Your task to perform on an android device: open app "WhatsApp Messenger" (install if not already installed) and go to login screen Image 0: 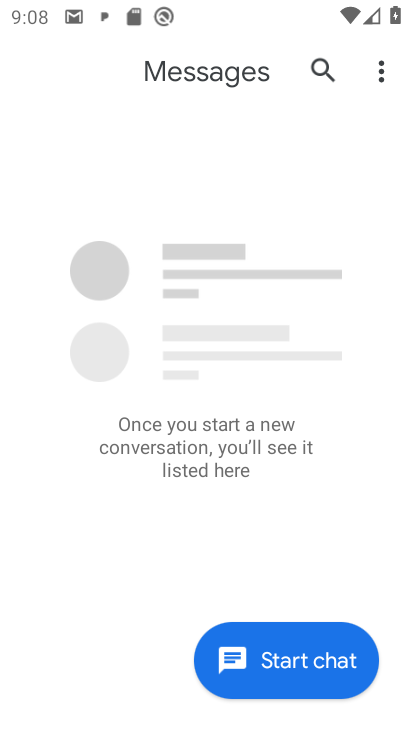
Step 0: press home button
Your task to perform on an android device: open app "WhatsApp Messenger" (install if not already installed) and go to login screen Image 1: 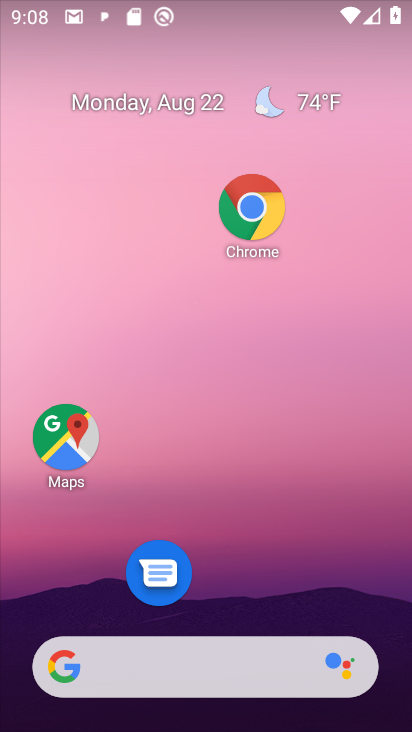
Step 1: drag from (237, 592) to (255, 276)
Your task to perform on an android device: open app "WhatsApp Messenger" (install if not already installed) and go to login screen Image 2: 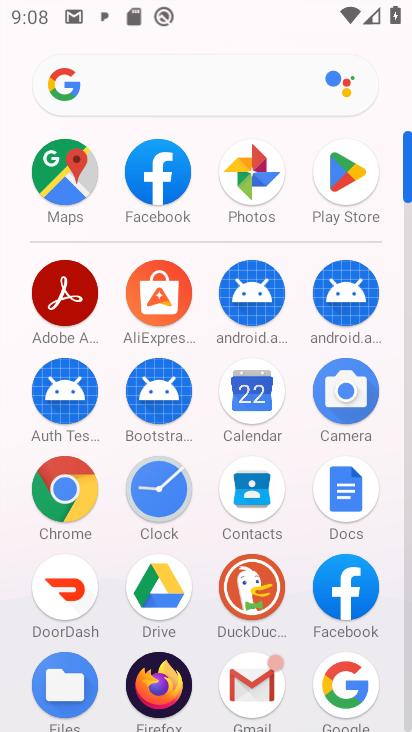
Step 2: click (331, 177)
Your task to perform on an android device: open app "WhatsApp Messenger" (install if not already installed) and go to login screen Image 3: 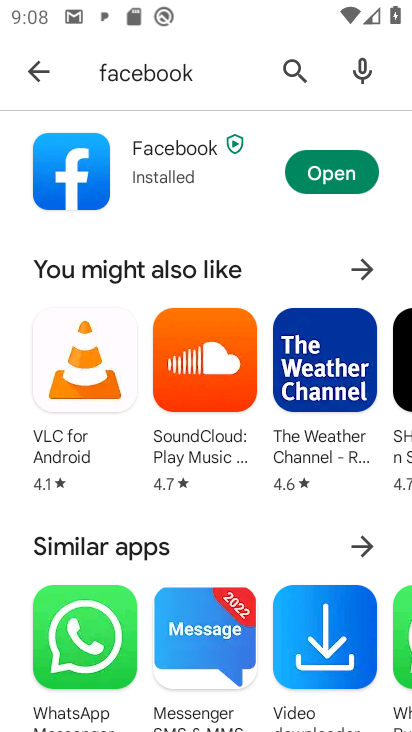
Step 3: click (170, 71)
Your task to perform on an android device: open app "WhatsApp Messenger" (install if not already installed) and go to login screen Image 4: 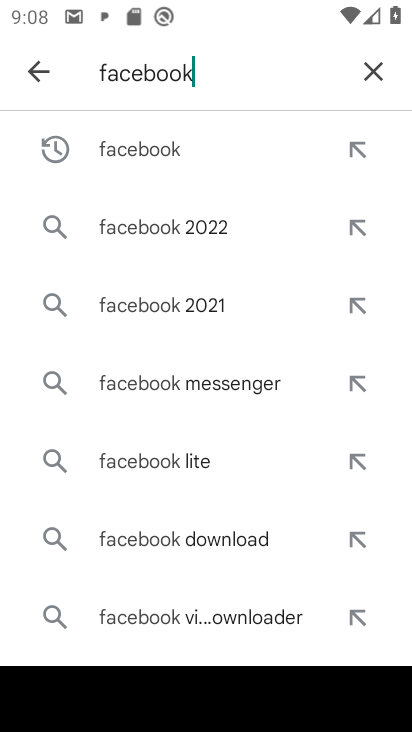
Step 4: click (380, 77)
Your task to perform on an android device: open app "WhatsApp Messenger" (install if not already installed) and go to login screen Image 5: 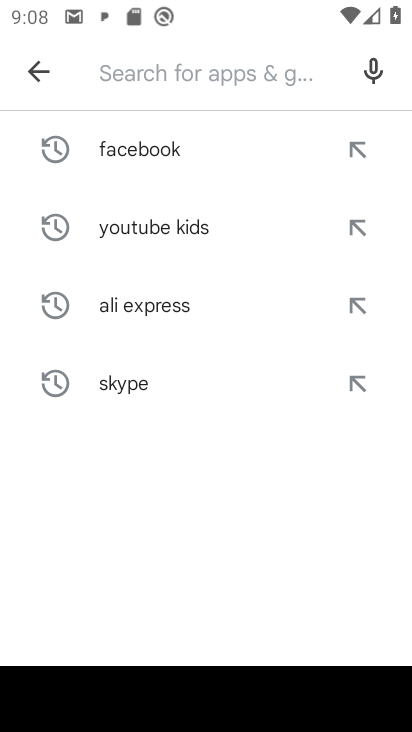
Step 5: type "Whatsapp Messenger"
Your task to perform on an android device: open app "WhatsApp Messenger" (install if not already installed) and go to login screen Image 6: 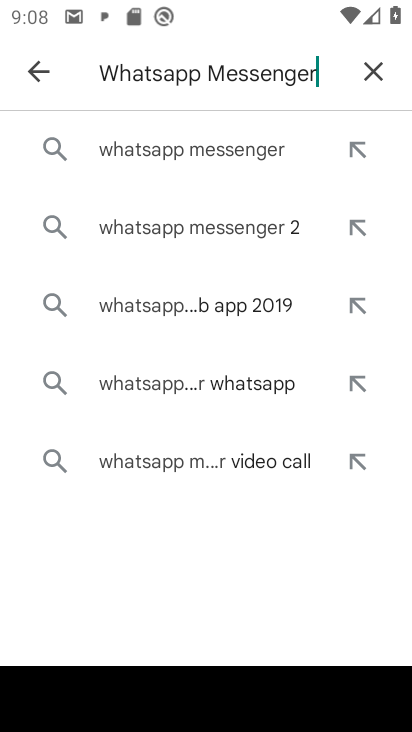
Step 6: click (196, 156)
Your task to perform on an android device: open app "WhatsApp Messenger" (install if not already installed) and go to login screen Image 7: 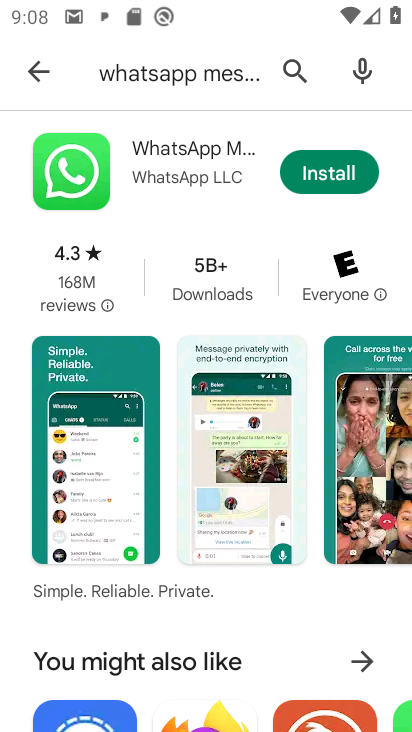
Step 7: click (328, 173)
Your task to perform on an android device: open app "WhatsApp Messenger" (install if not already installed) and go to login screen Image 8: 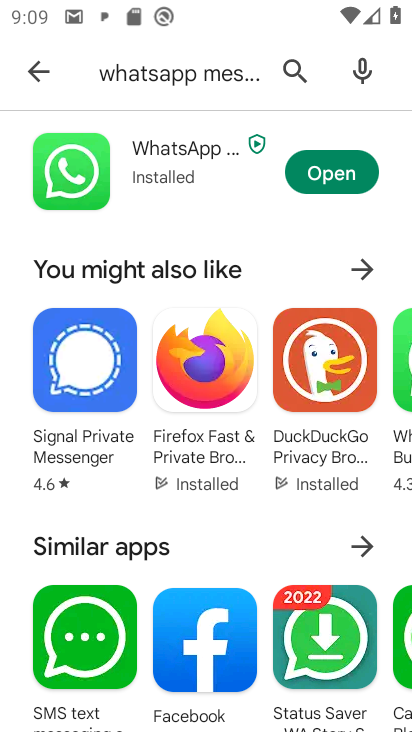
Step 8: click (329, 173)
Your task to perform on an android device: open app "WhatsApp Messenger" (install if not already installed) and go to login screen Image 9: 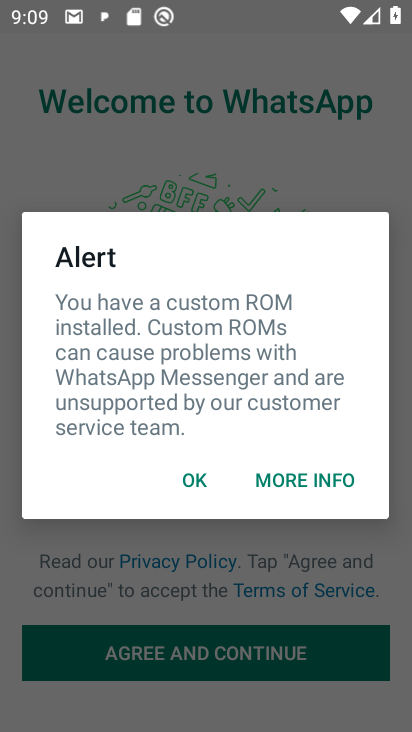
Step 9: click (195, 482)
Your task to perform on an android device: open app "WhatsApp Messenger" (install if not already installed) and go to login screen Image 10: 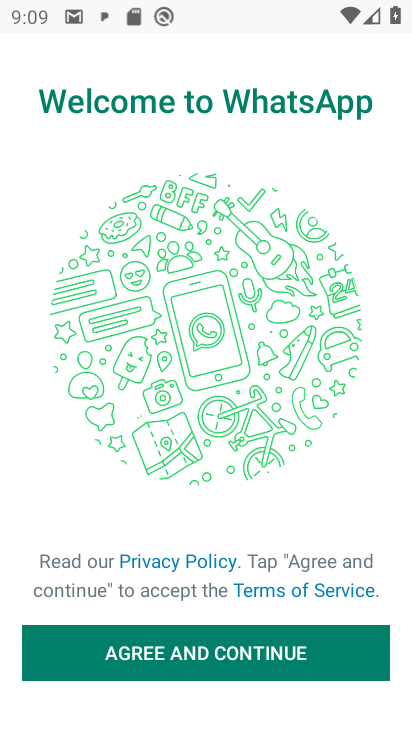
Step 10: click (197, 647)
Your task to perform on an android device: open app "WhatsApp Messenger" (install if not already installed) and go to login screen Image 11: 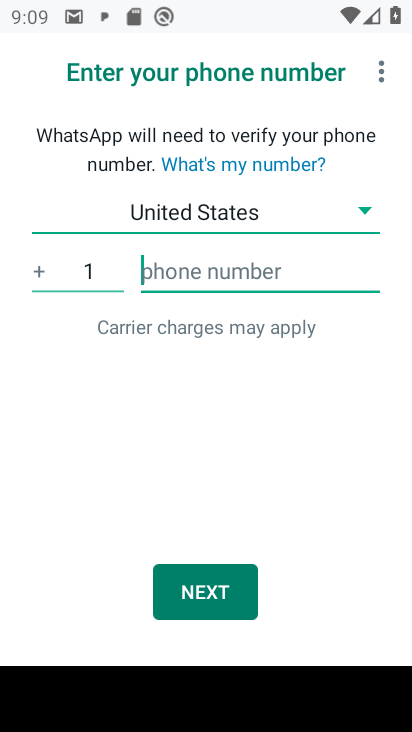
Step 11: task complete